Your task to perform on an android device: Open Youtube and go to the subscriptions tab Image 0: 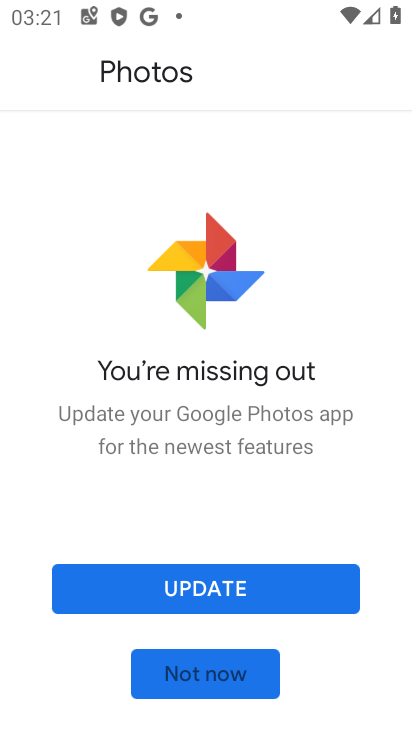
Step 0: press home button
Your task to perform on an android device: Open Youtube and go to the subscriptions tab Image 1: 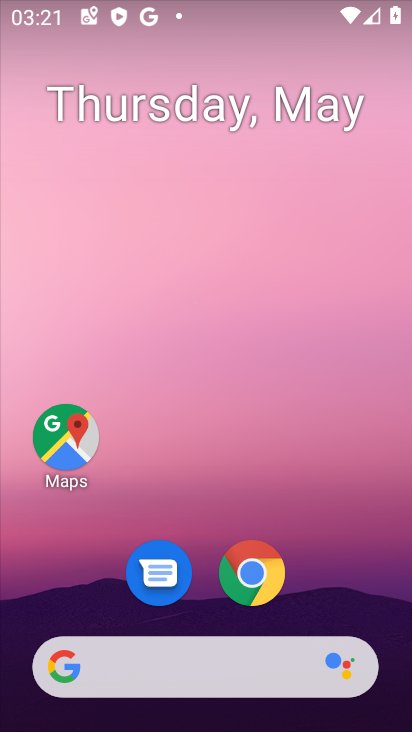
Step 1: drag from (334, 526) to (334, 103)
Your task to perform on an android device: Open Youtube and go to the subscriptions tab Image 2: 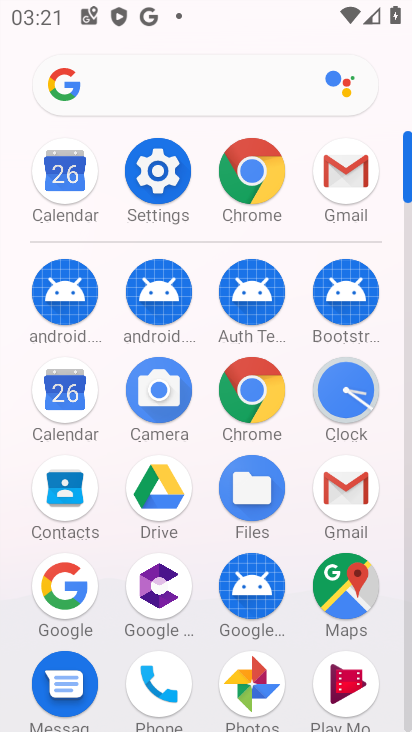
Step 2: drag from (185, 614) to (190, 207)
Your task to perform on an android device: Open Youtube and go to the subscriptions tab Image 3: 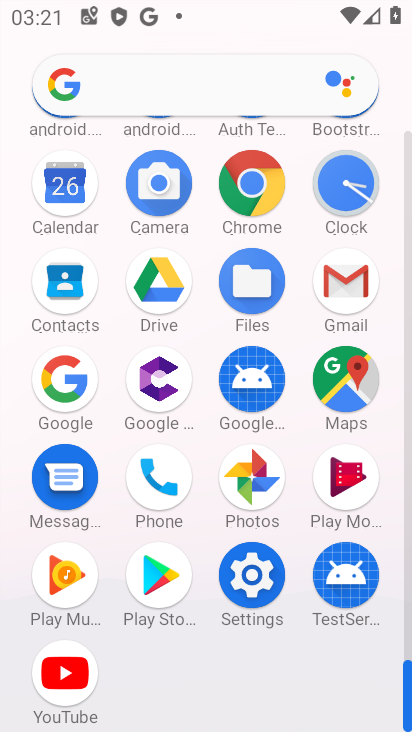
Step 3: click (62, 661)
Your task to perform on an android device: Open Youtube and go to the subscriptions tab Image 4: 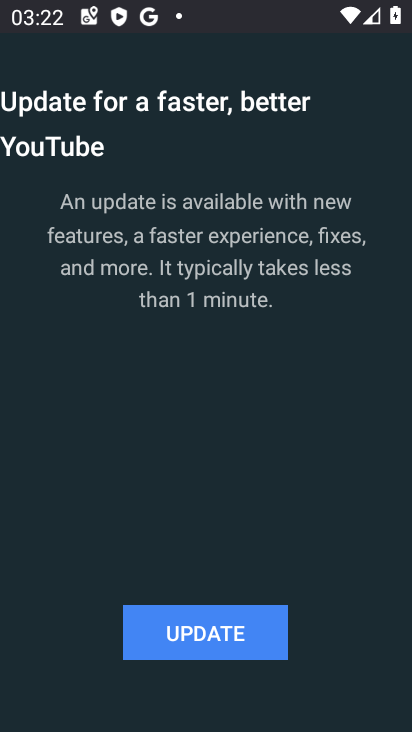
Step 4: task complete